Your task to perform on an android device: Open the map Image 0: 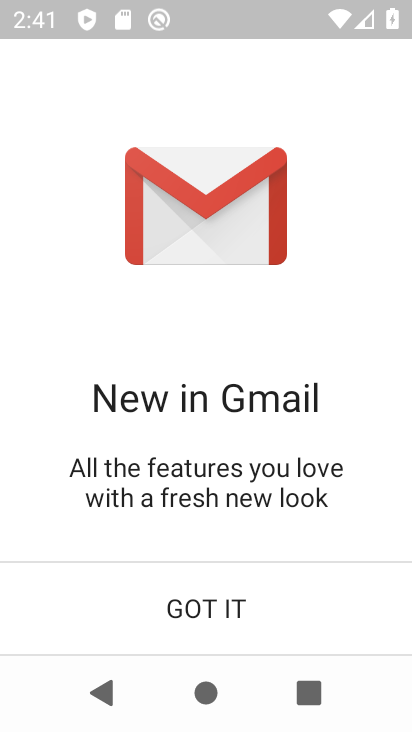
Step 0: press home button
Your task to perform on an android device: Open the map Image 1: 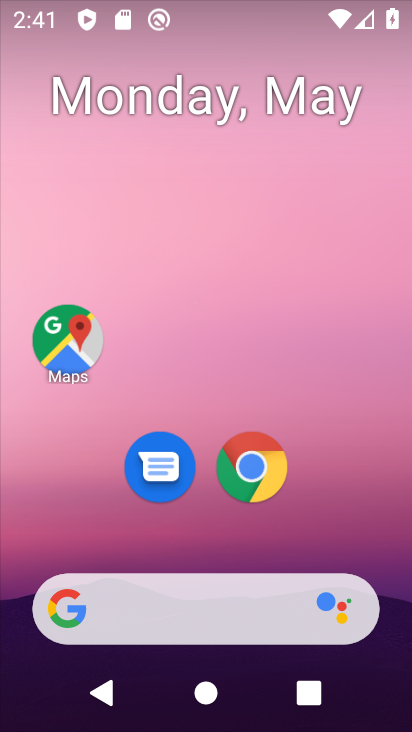
Step 1: drag from (273, 496) to (254, 167)
Your task to perform on an android device: Open the map Image 2: 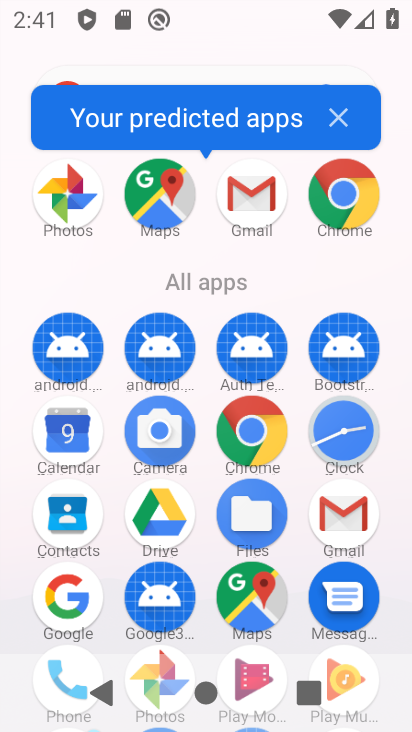
Step 2: click (250, 584)
Your task to perform on an android device: Open the map Image 3: 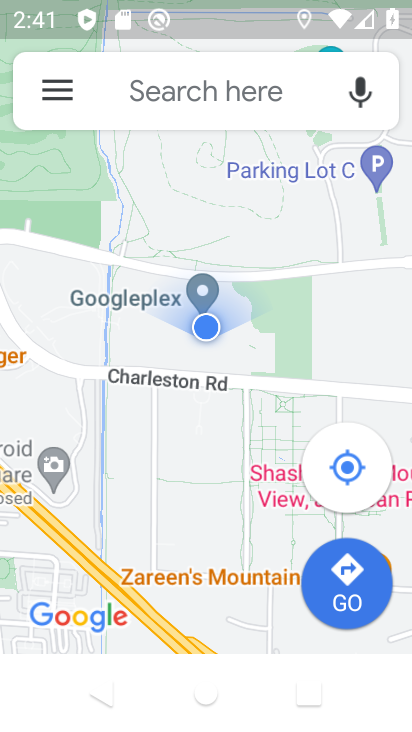
Step 3: task complete